Your task to perform on an android device: Go to internet settings Image 0: 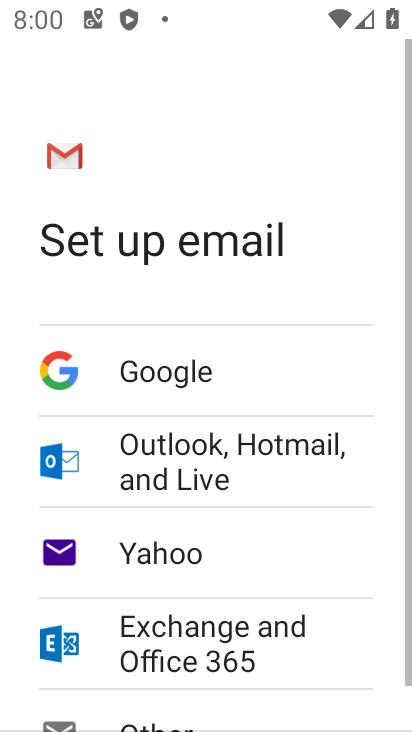
Step 0: press home button
Your task to perform on an android device: Go to internet settings Image 1: 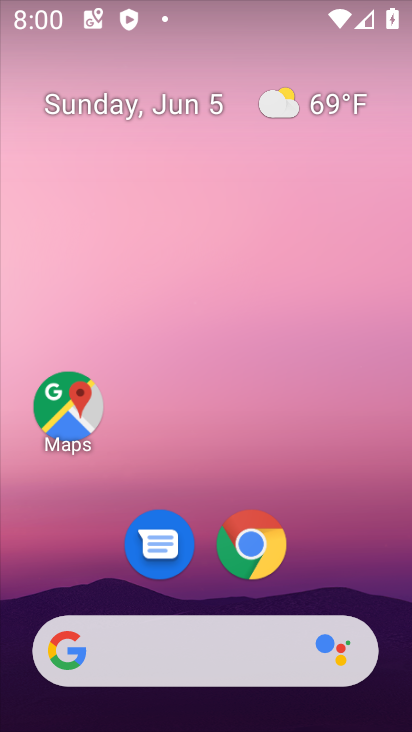
Step 1: drag from (356, 508) to (377, 169)
Your task to perform on an android device: Go to internet settings Image 2: 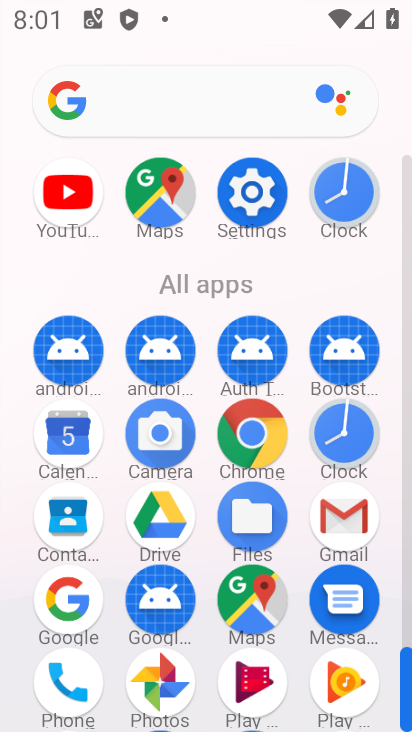
Step 2: click (253, 211)
Your task to perform on an android device: Go to internet settings Image 3: 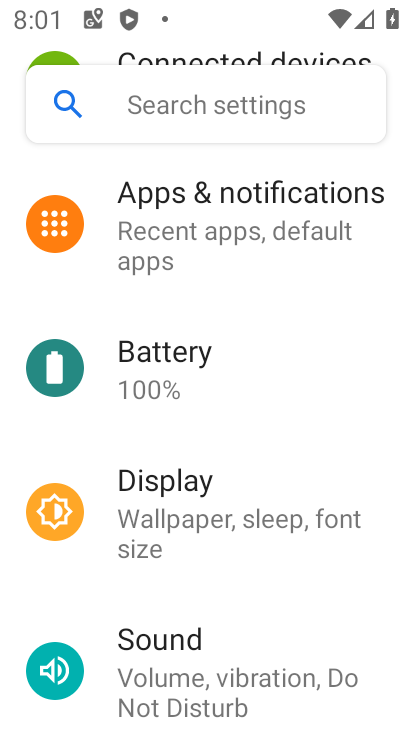
Step 3: drag from (355, 284) to (360, 386)
Your task to perform on an android device: Go to internet settings Image 4: 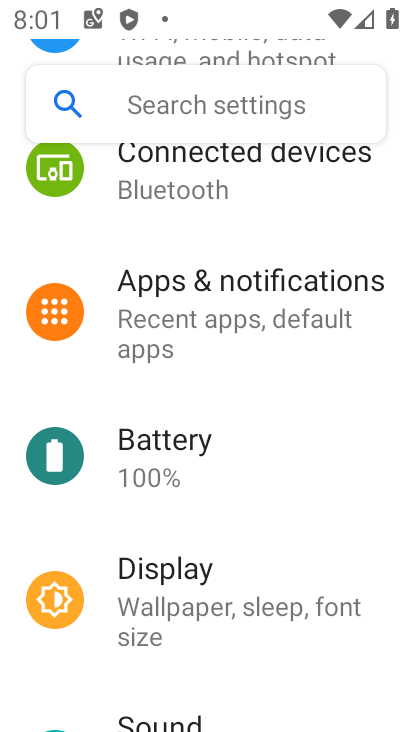
Step 4: drag from (373, 212) to (376, 359)
Your task to perform on an android device: Go to internet settings Image 5: 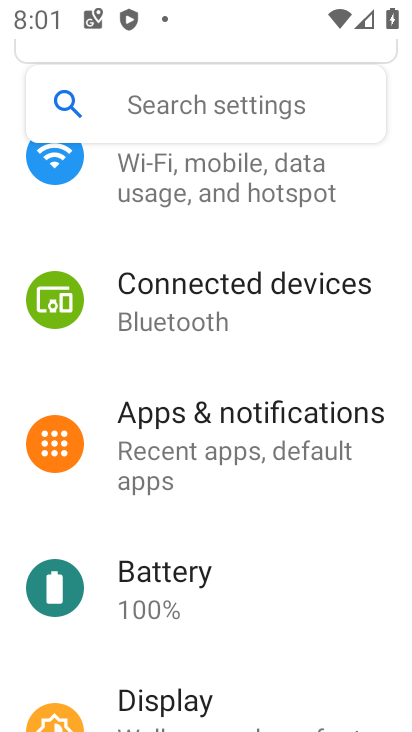
Step 5: drag from (380, 198) to (380, 353)
Your task to perform on an android device: Go to internet settings Image 6: 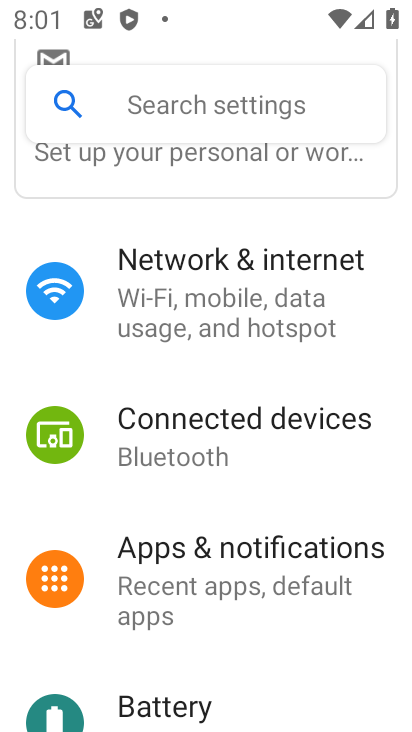
Step 6: drag from (387, 215) to (390, 497)
Your task to perform on an android device: Go to internet settings Image 7: 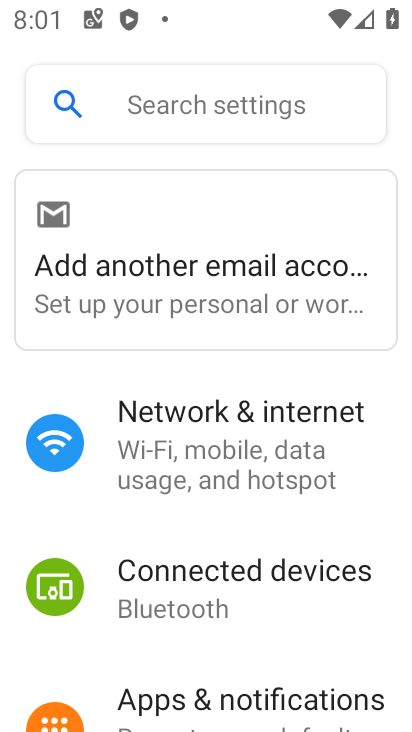
Step 7: click (305, 459)
Your task to perform on an android device: Go to internet settings Image 8: 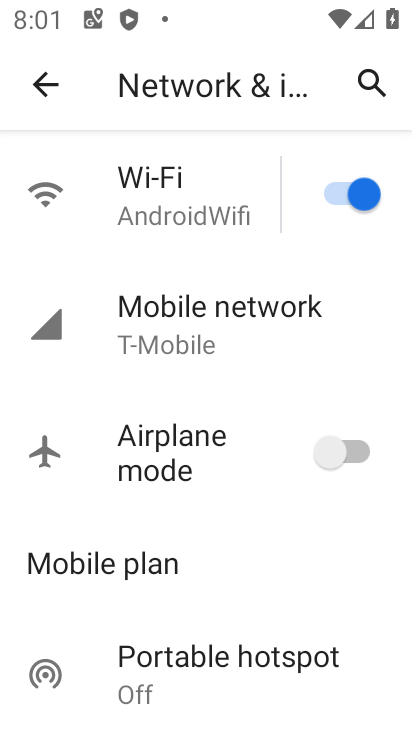
Step 8: task complete